Your task to perform on an android device: toggle sleep mode Image 0: 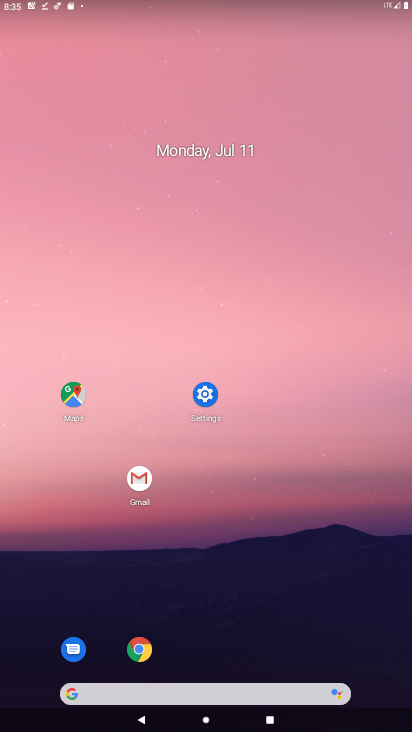
Step 0: click (194, 398)
Your task to perform on an android device: toggle sleep mode Image 1: 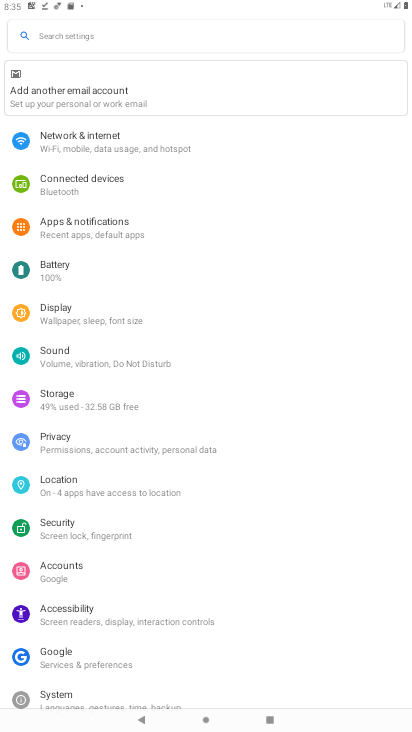
Step 1: click (106, 313)
Your task to perform on an android device: toggle sleep mode Image 2: 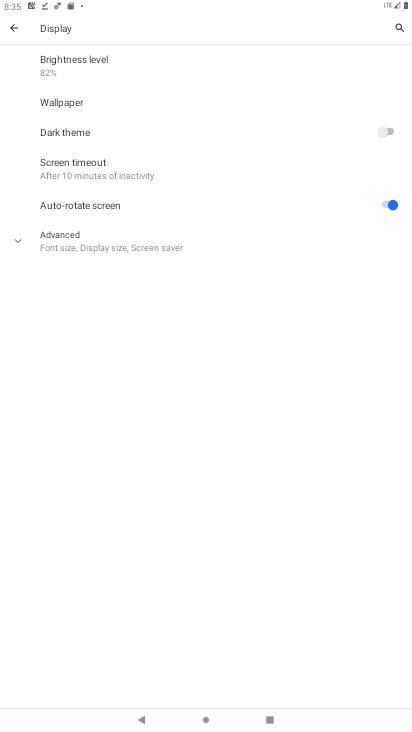
Step 2: click (110, 170)
Your task to perform on an android device: toggle sleep mode Image 3: 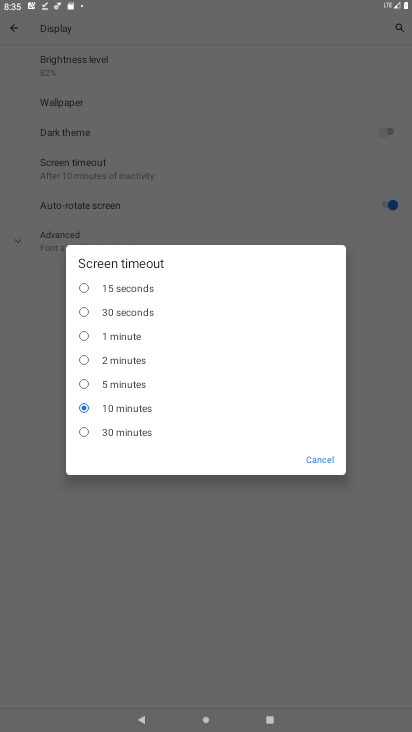
Step 3: click (102, 385)
Your task to perform on an android device: toggle sleep mode Image 4: 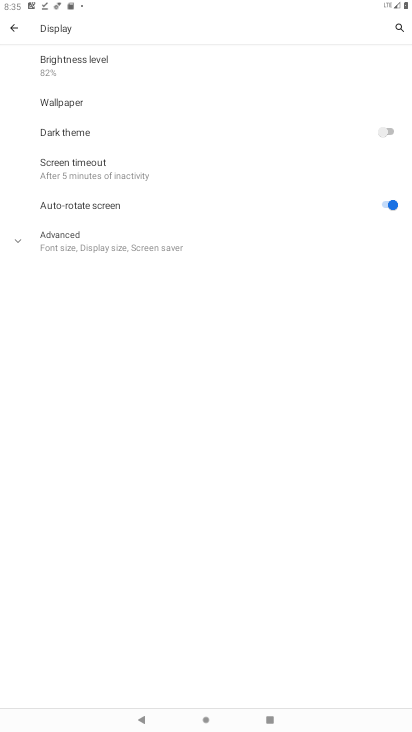
Step 4: task complete